Your task to perform on an android device: empty trash in the gmail app Image 0: 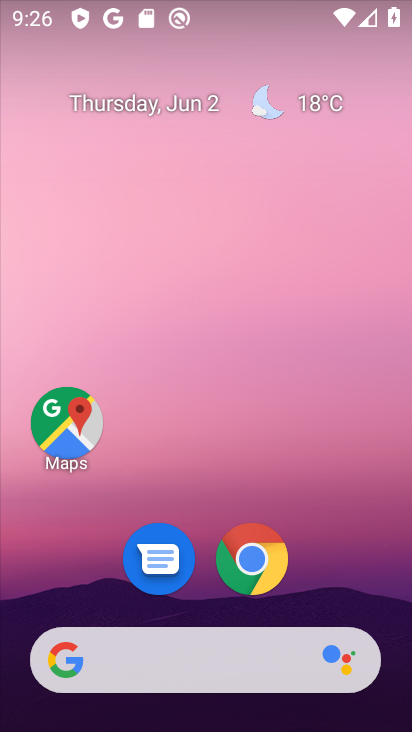
Step 0: drag from (341, 505) to (247, 2)
Your task to perform on an android device: empty trash in the gmail app Image 1: 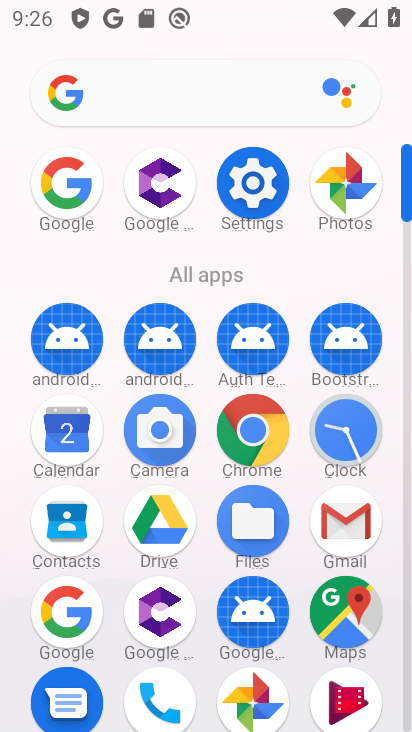
Step 1: drag from (294, 279) to (267, 31)
Your task to perform on an android device: empty trash in the gmail app Image 2: 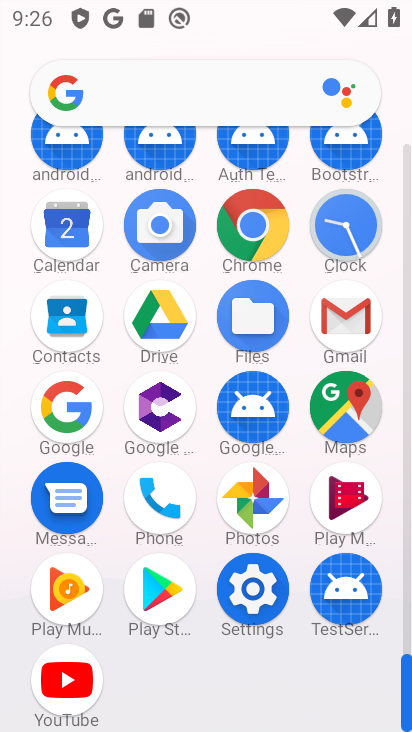
Step 2: click (348, 316)
Your task to perform on an android device: empty trash in the gmail app Image 3: 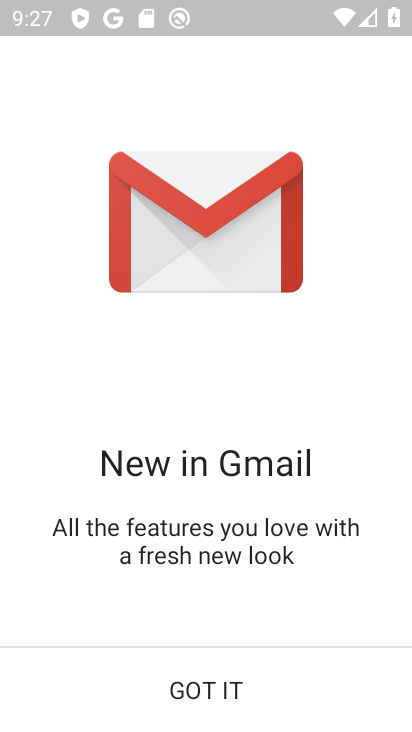
Step 3: click (200, 687)
Your task to perform on an android device: empty trash in the gmail app Image 4: 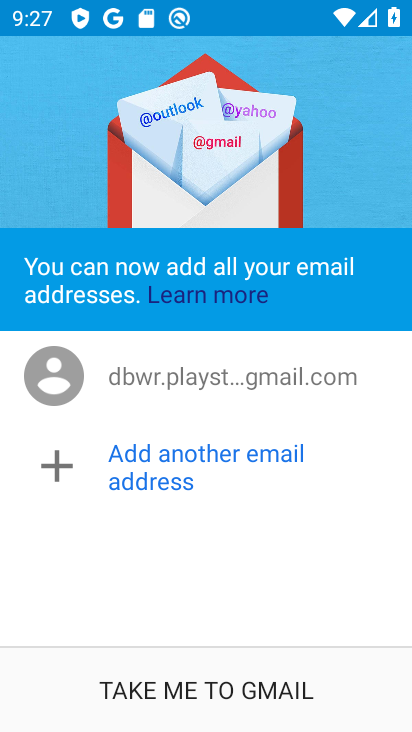
Step 4: click (200, 687)
Your task to perform on an android device: empty trash in the gmail app Image 5: 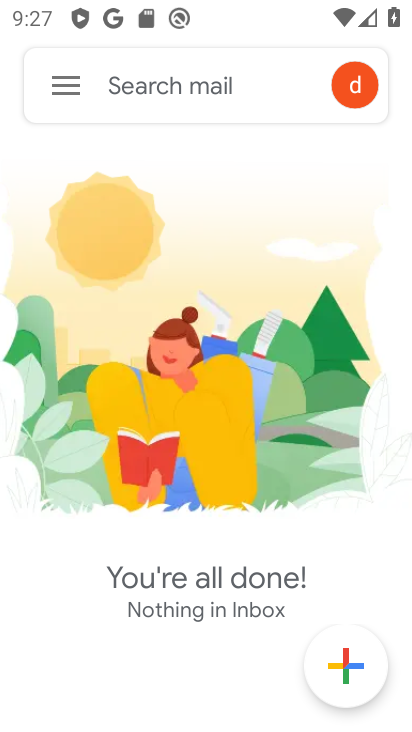
Step 5: click (63, 83)
Your task to perform on an android device: empty trash in the gmail app Image 6: 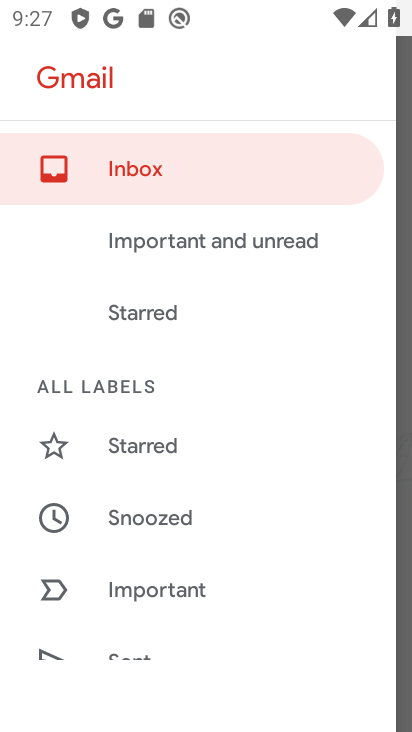
Step 6: drag from (162, 416) to (136, 286)
Your task to perform on an android device: empty trash in the gmail app Image 7: 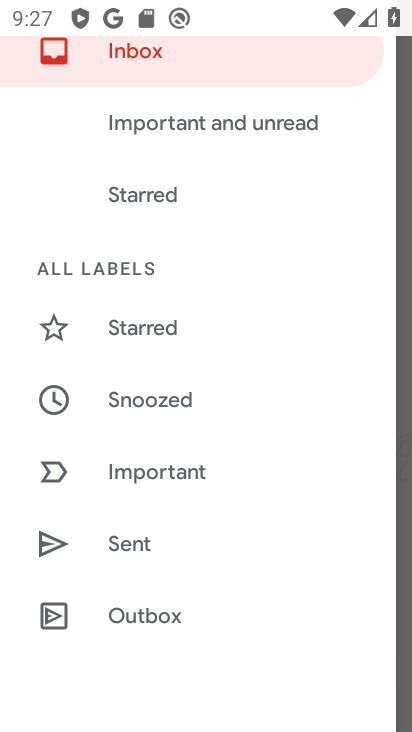
Step 7: drag from (169, 430) to (138, 313)
Your task to perform on an android device: empty trash in the gmail app Image 8: 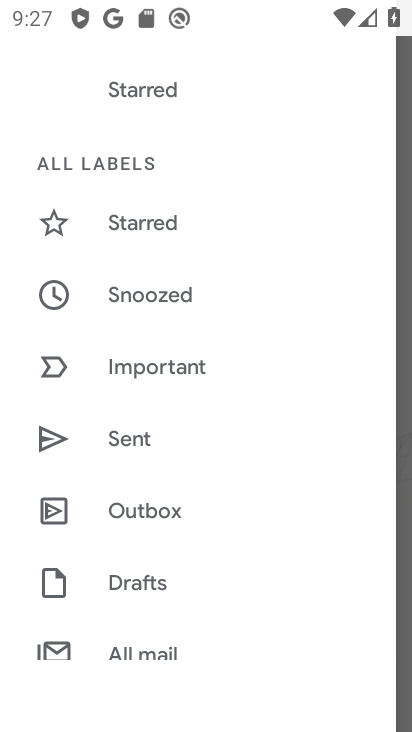
Step 8: drag from (158, 401) to (153, 295)
Your task to perform on an android device: empty trash in the gmail app Image 9: 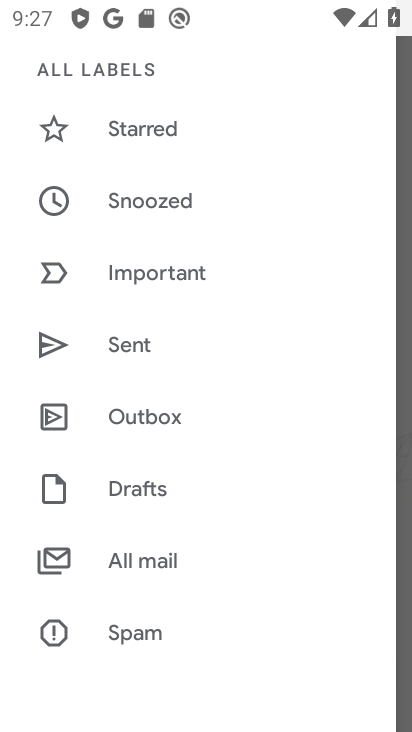
Step 9: drag from (163, 374) to (171, 268)
Your task to perform on an android device: empty trash in the gmail app Image 10: 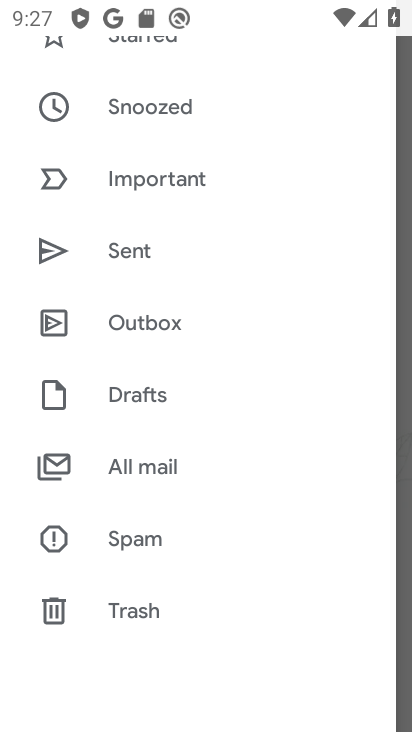
Step 10: click (143, 605)
Your task to perform on an android device: empty trash in the gmail app Image 11: 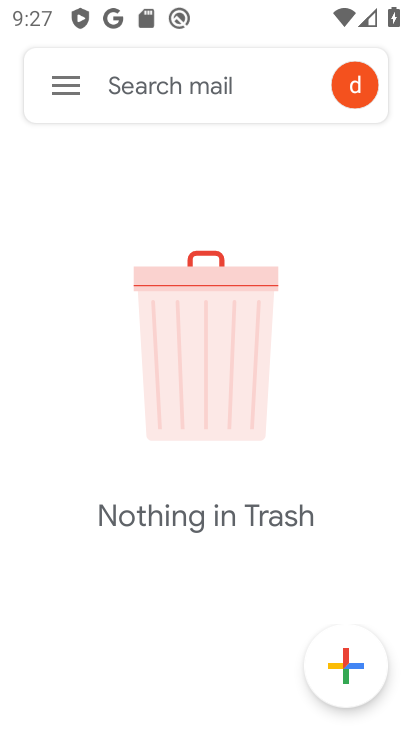
Step 11: task complete